Your task to perform on an android device: toggle priority inbox in the gmail app Image 0: 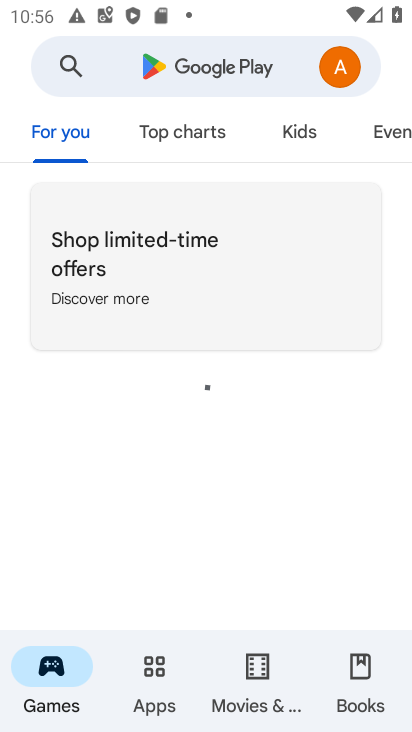
Step 0: press home button
Your task to perform on an android device: toggle priority inbox in the gmail app Image 1: 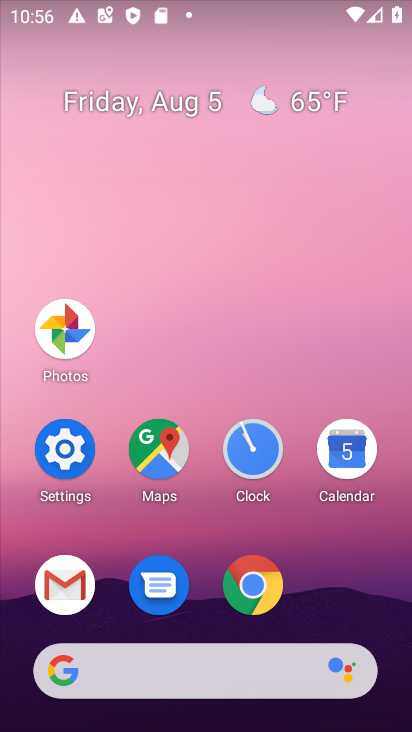
Step 1: click (63, 584)
Your task to perform on an android device: toggle priority inbox in the gmail app Image 2: 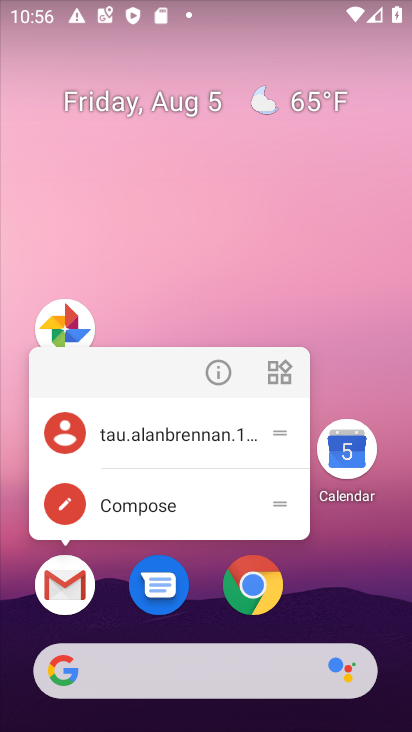
Step 2: click (63, 584)
Your task to perform on an android device: toggle priority inbox in the gmail app Image 3: 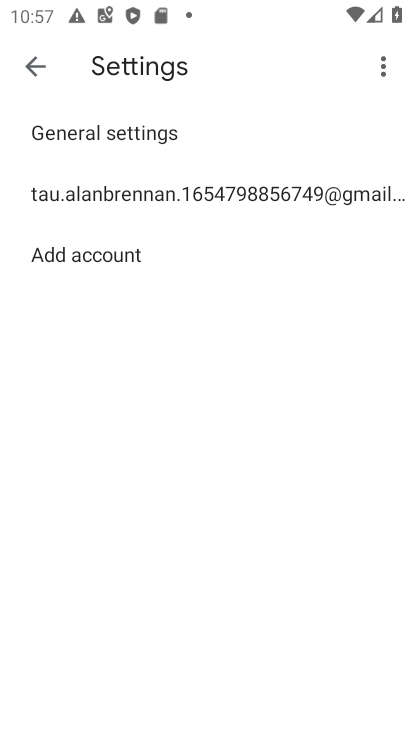
Step 3: click (140, 188)
Your task to perform on an android device: toggle priority inbox in the gmail app Image 4: 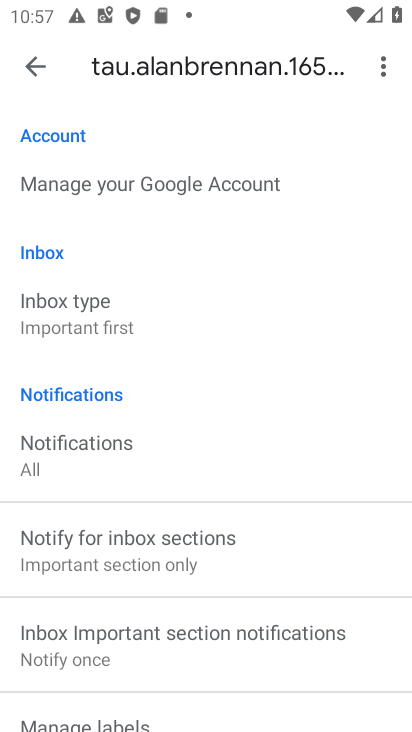
Step 4: click (63, 303)
Your task to perform on an android device: toggle priority inbox in the gmail app Image 5: 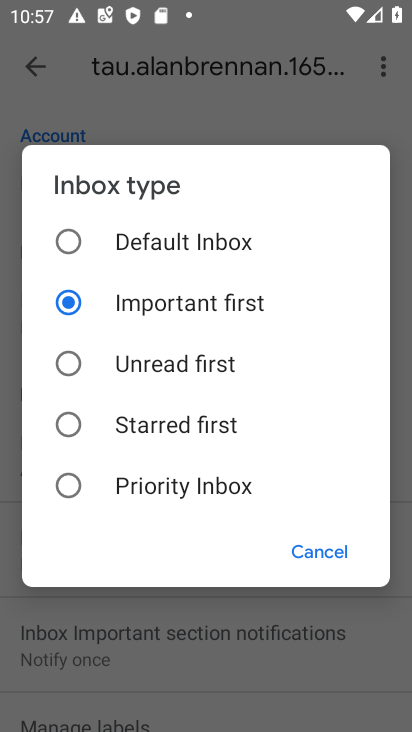
Step 5: click (67, 491)
Your task to perform on an android device: toggle priority inbox in the gmail app Image 6: 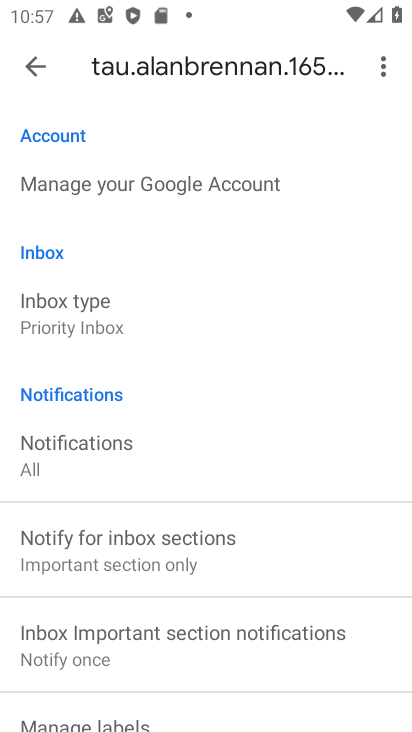
Step 6: task complete